Your task to perform on an android device: Open Youtube and go to "Your channel" Image 0: 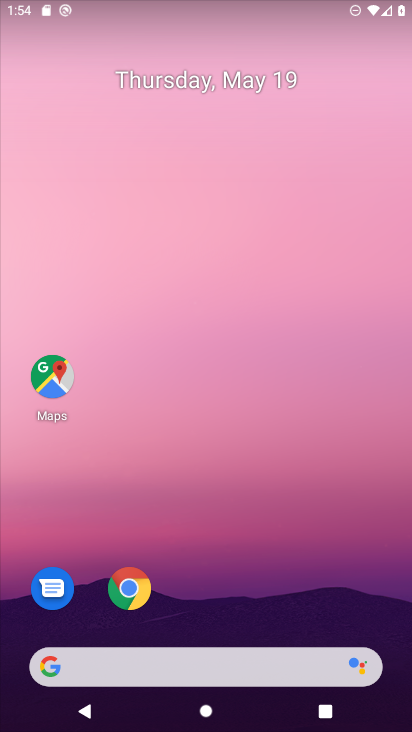
Step 0: drag from (389, 625) to (404, 7)
Your task to perform on an android device: Open Youtube and go to "Your channel" Image 1: 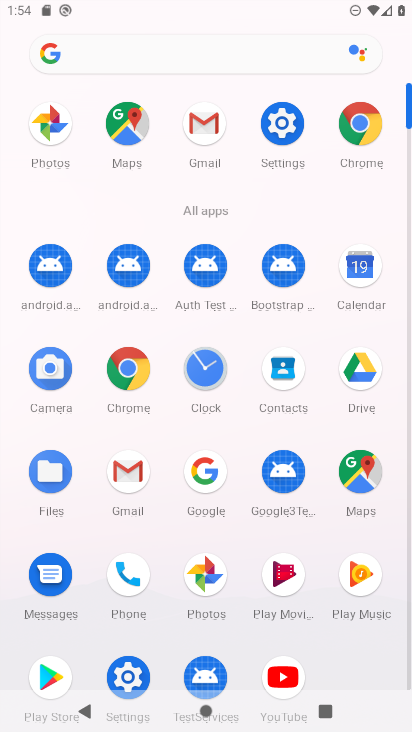
Step 1: click (288, 674)
Your task to perform on an android device: Open Youtube and go to "Your channel" Image 2: 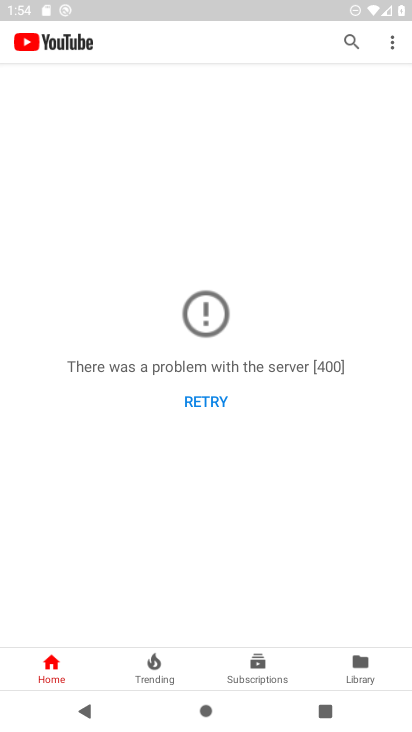
Step 2: click (197, 405)
Your task to perform on an android device: Open Youtube and go to "Your channel" Image 3: 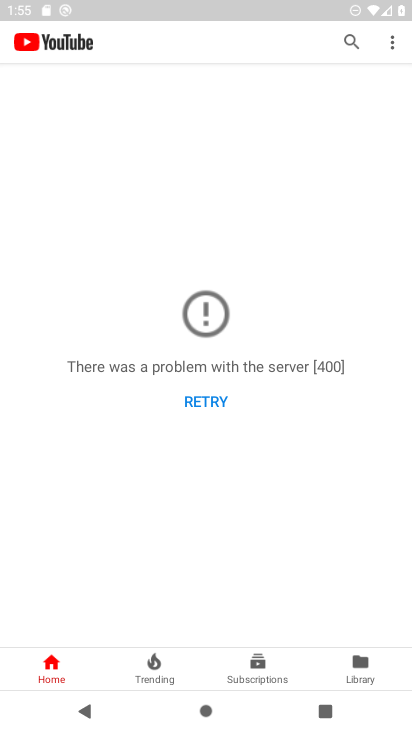
Step 3: task complete